Your task to perform on an android device: Open Yahoo.com Image 0: 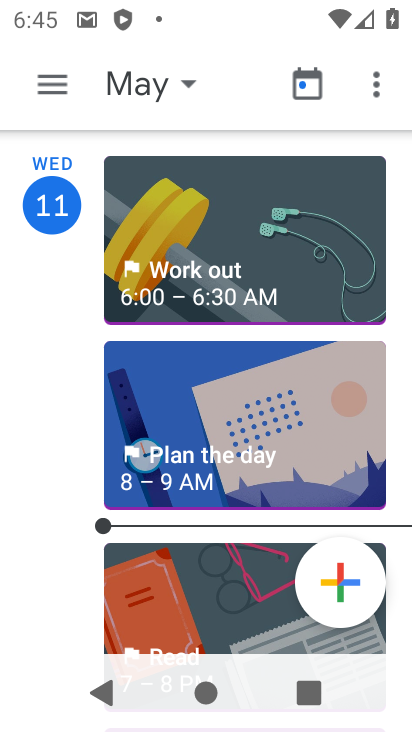
Step 0: press home button
Your task to perform on an android device: Open Yahoo.com Image 1: 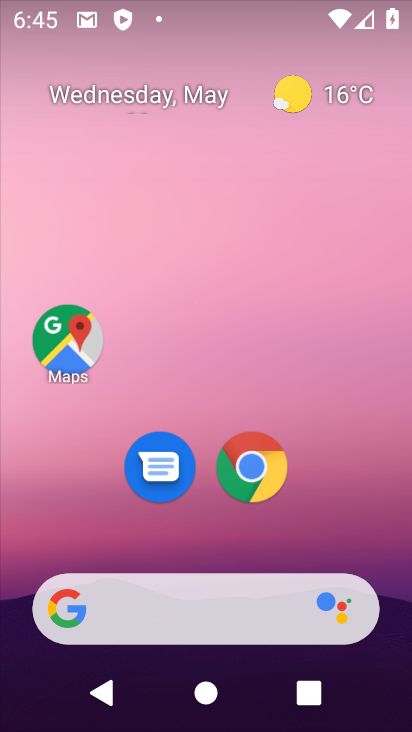
Step 1: click (257, 469)
Your task to perform on an android device: Open Yahoo.com Image 2: 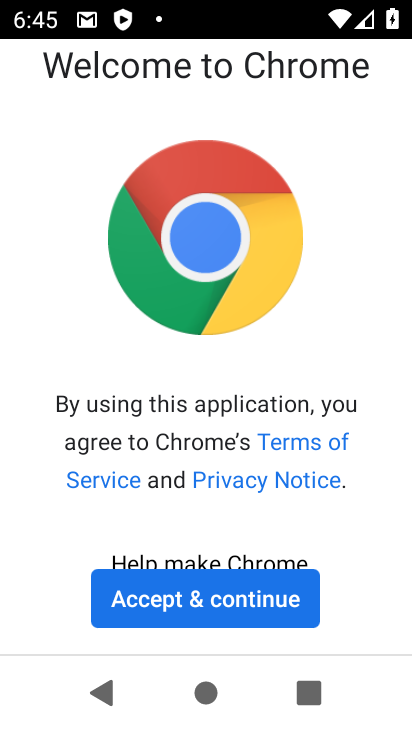
Step 2: click (231, 597)
Your task to perform on an android device: Open Yahoo.com Image 3: 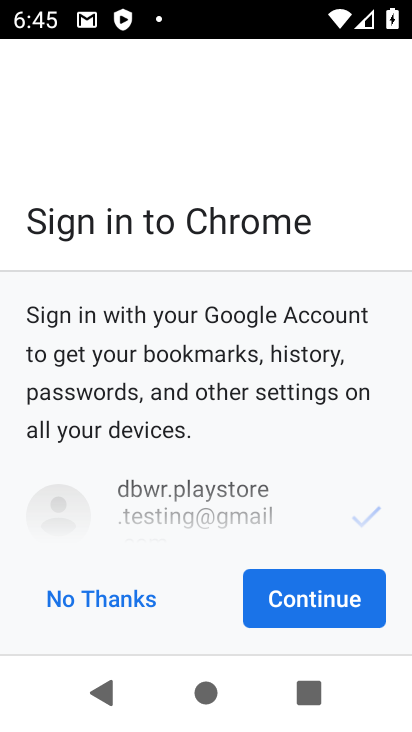
Step 3: click (318, 591)
Your task to perform on an android device: Open Yahoo.com Image 4: 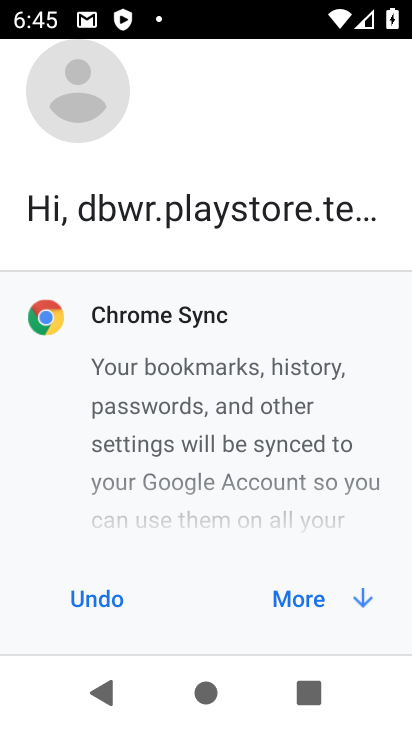
Step 4: click (349, 597)
Your task to perform on an android device: Open Yahoo.com Image 5: 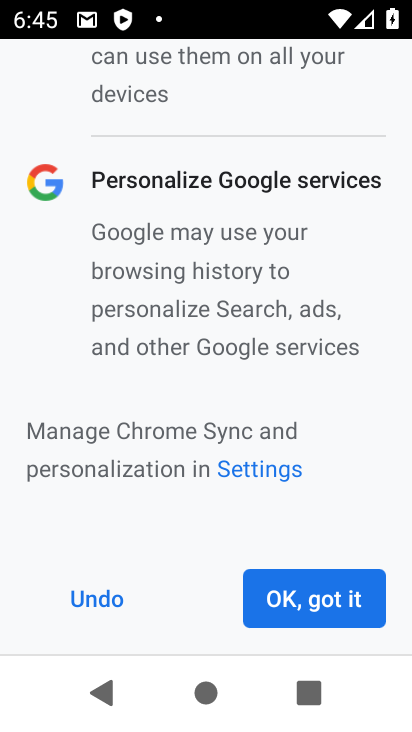
Step 5: click (320, 593)
Your task to perform on an android device: Open Yahoo.com Image 6: 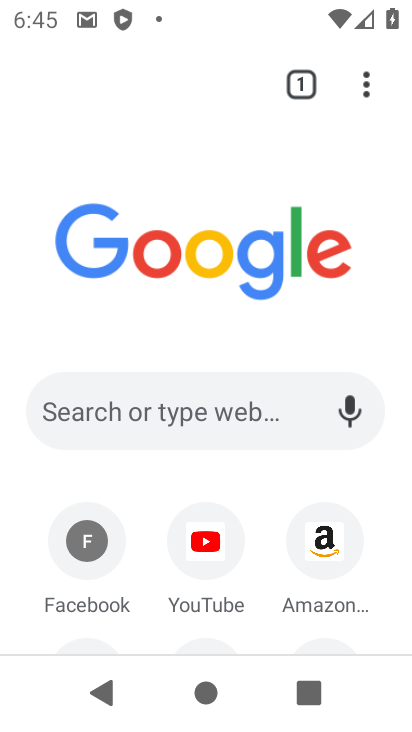
Step 6: drag from (286, 313) to (221, 2)
Your task to perform on an android device: Open Yahoo.com Image 7: 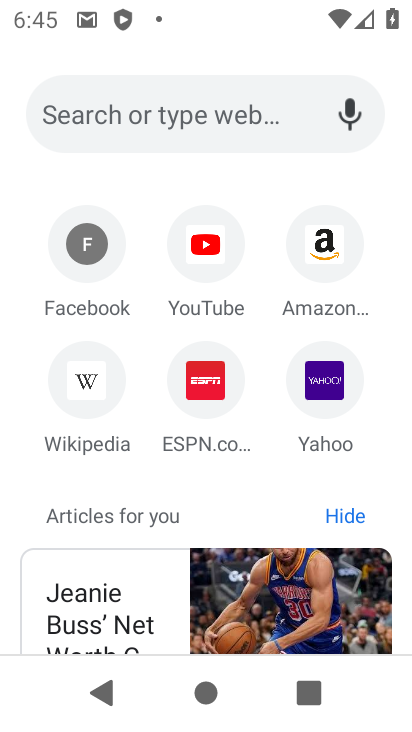
Step 7: click (330, 395)
Your task to perform on an android device: Open Yahoo.com Image 8: 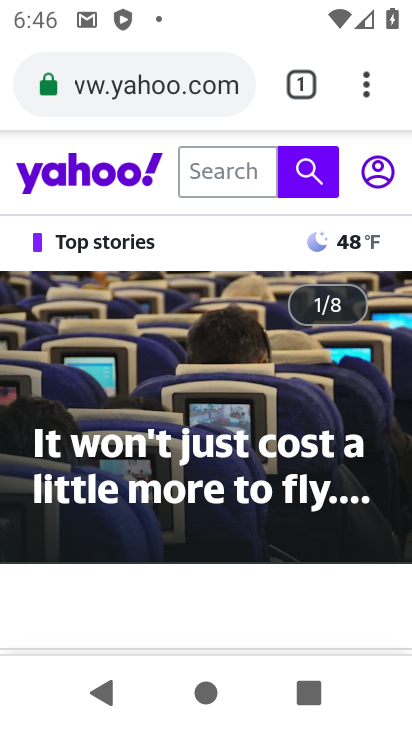
Step 8: task complete